Your task to perform on an android device: change the clock display to digital Image 0: 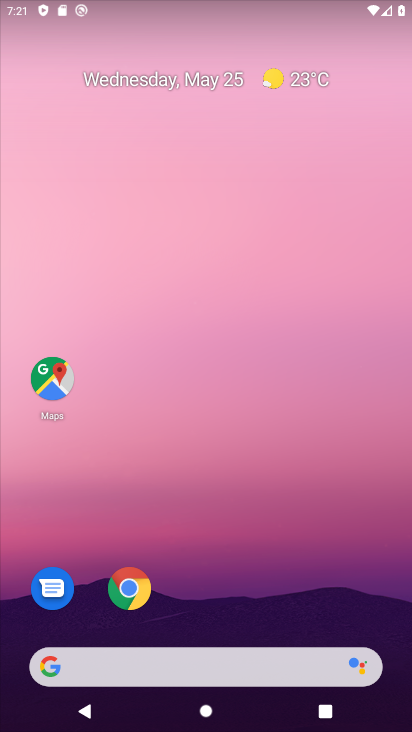
Step 0: drag from (177, 567) to (217, 262)
Your task to perform on an android device: change the clock display to digital Image 1: 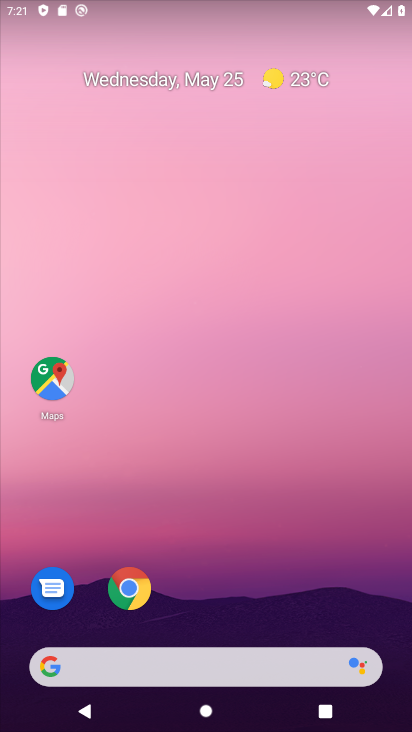
Step 1: drag from (239, 611) to (311, 102)
Your task to perform on an android device: change the clock display to digital Image 2: 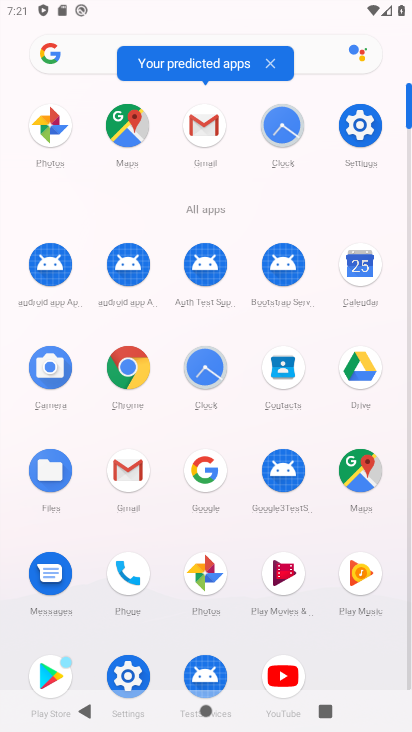
Step 2: click (284, 128)
Your task to perform on an android device: change the clock display to digital Image 3: 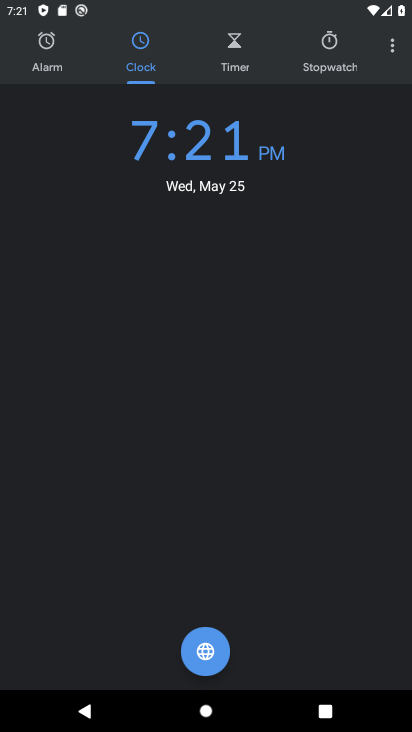
Step 3: click (395, 46)
Your task to perform on an android device: change the clock display to digital Image 4: 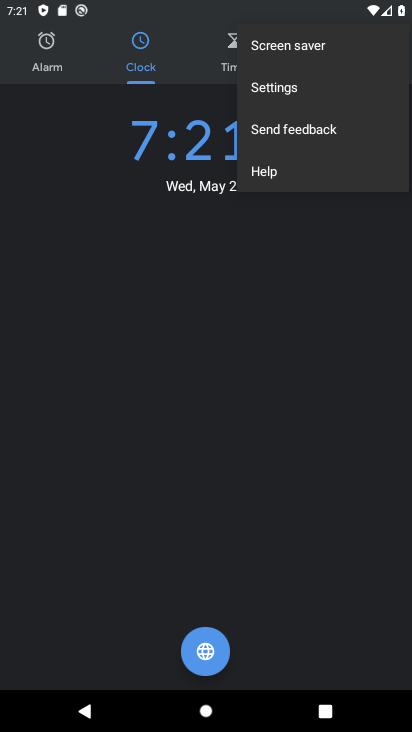
Step 4: click (330, 84)
Your task to perform on an android device: change the clock display to digital Image 5: 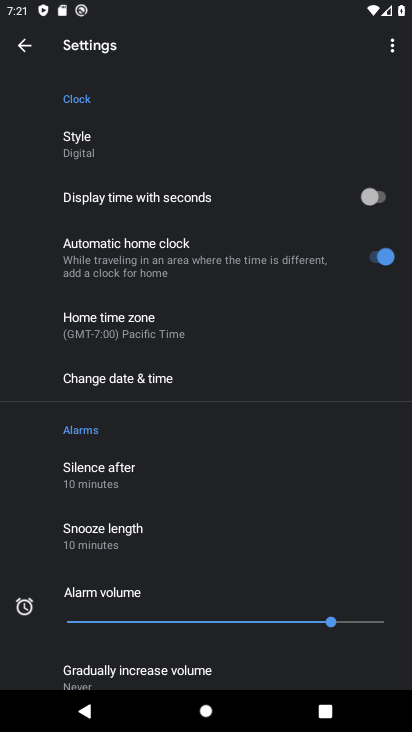
Step 5: click (95, 156)
Your task to perform on an android device: change the clock display to digital Image 6: 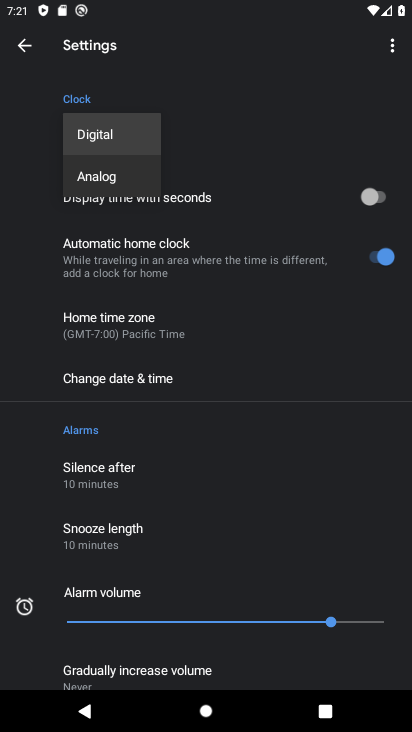
Step 6: task complete